Your task to perform on an android device: Search for Mexican restaurants on Maps Image 0: 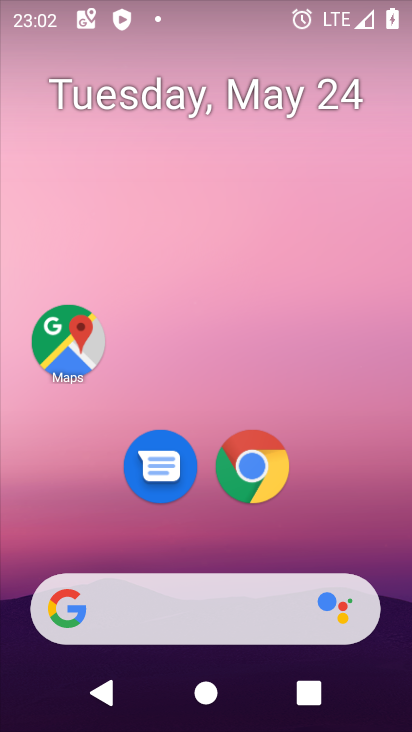
Step 0: drag from (388, 549) to (388, 268)
Your task to perform on an android device: Search for Mexican restaurants on Maps Image 1: 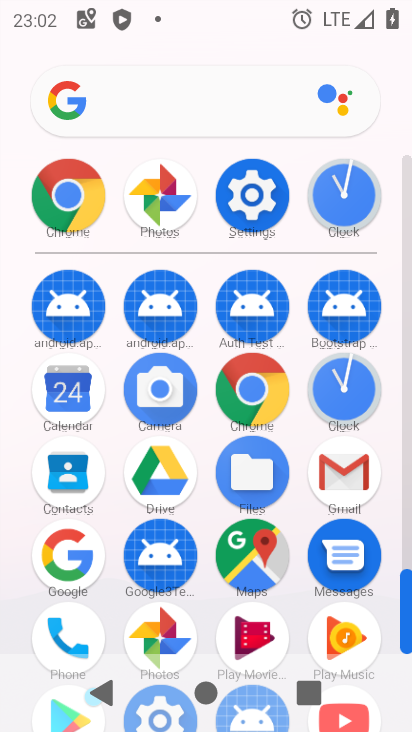
Step 1: click (247, 572)
Your task to perform on an android device: Search for Mexican restaurants on Maps Image 2: 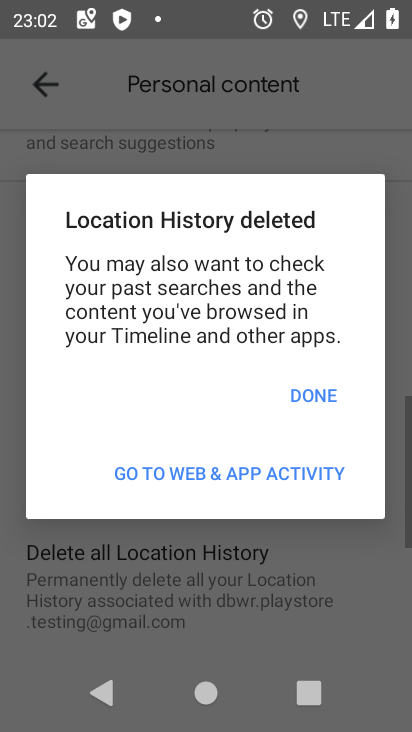
Step 2: press back button
Your task to perform on an android device: Search for Mexican restaurants on Maps Image 3: 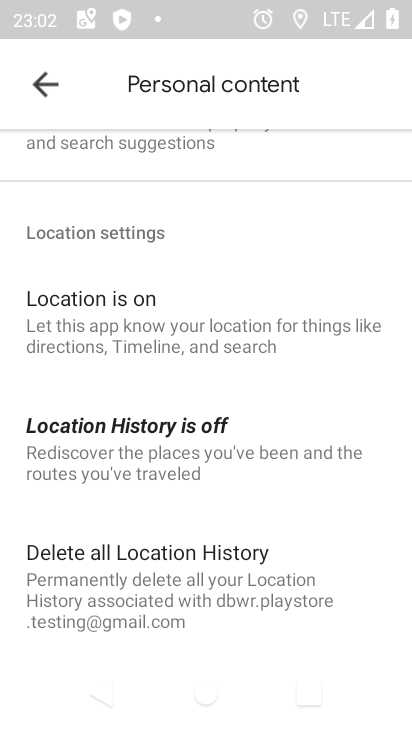
Step 3: press back button
Your task to perform on an android device: Search for Mexican restaurants on Maps Image 4: 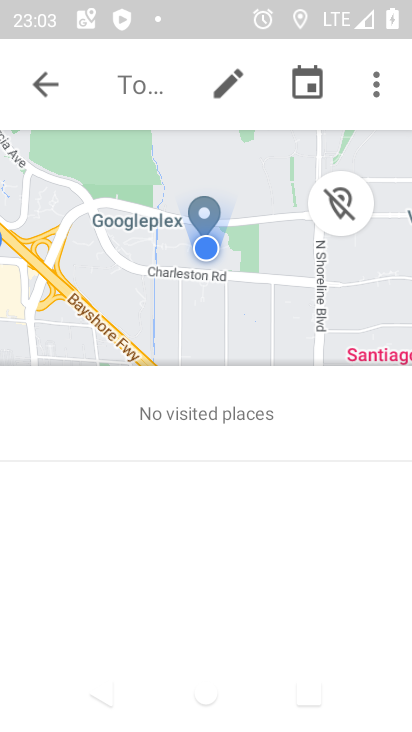
Step 4: press back button
Your task to perform on an android device: Search for Mexican restaurants on Maps Image 5: 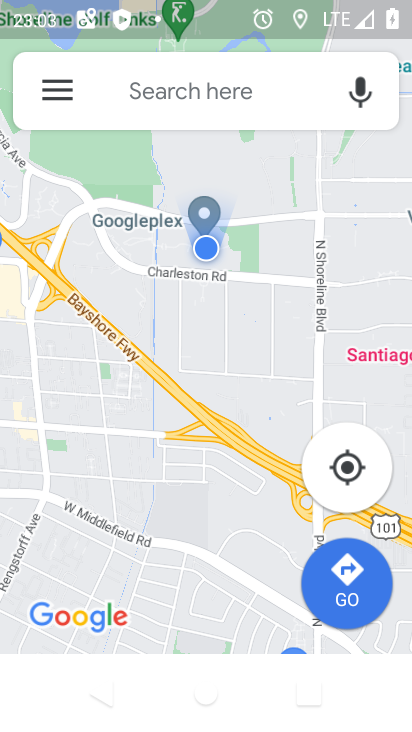
Step 5: click (170, 97)
Your task to perform on an android device: Search for Mexican restaurants on Maps Image 6: 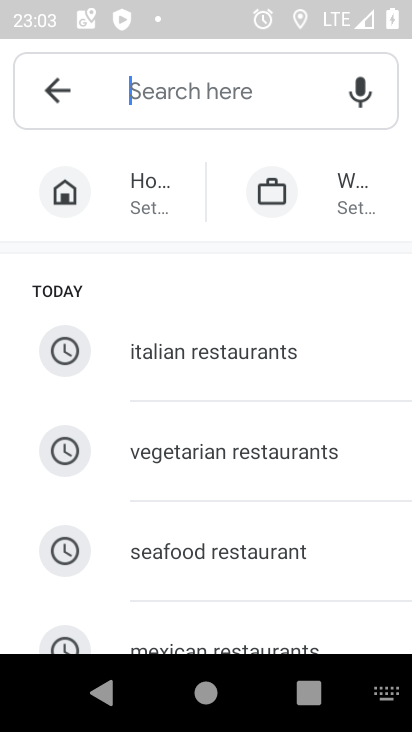
Step 6: type "mixcian restaurants"
Your task to perform on an android device: Search for Mexican restaurants on Maps Image 7: 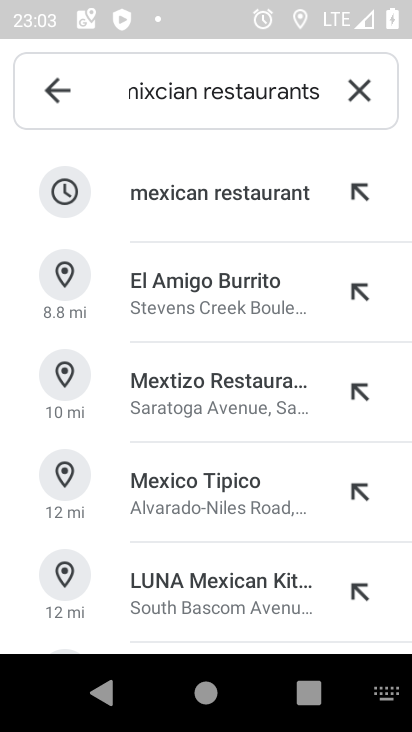
Step 7: click (213, 214)
Your task to perform on an android device: Search for Mexican restaurants on Maps Image 8: 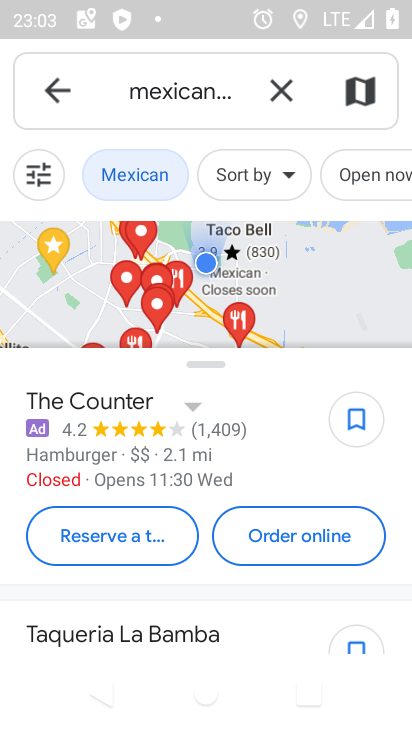
Step 8: task complete